Your task to perform on an android device: Open calendar and show me the second week of next month Image 0: 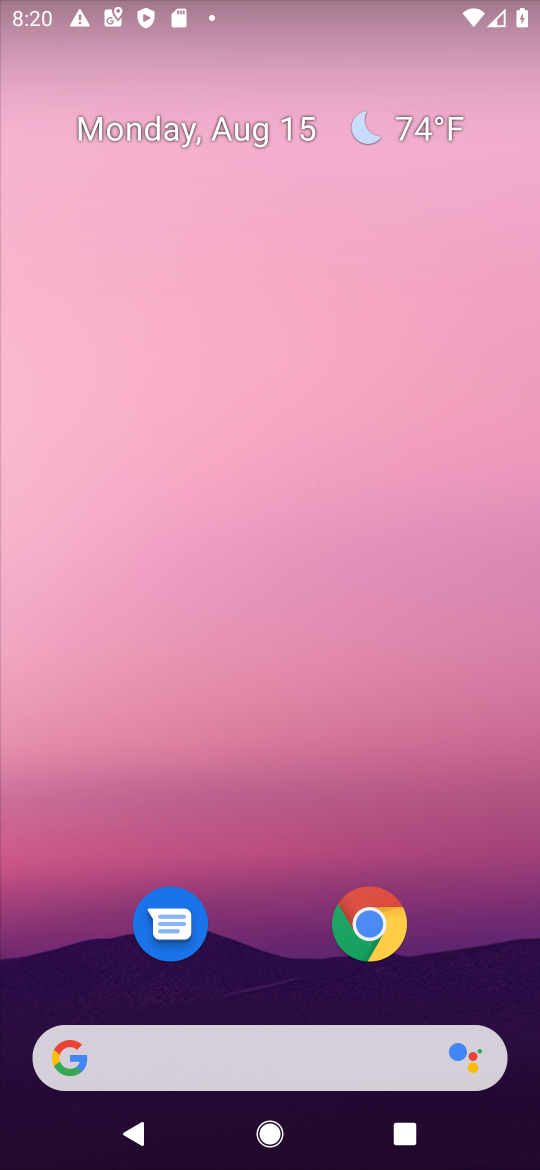
Step 0: drag from (489, 988) to (468, 218)
Your task to perform on an android device: Open calendar and show me the second week of next month Image 1: 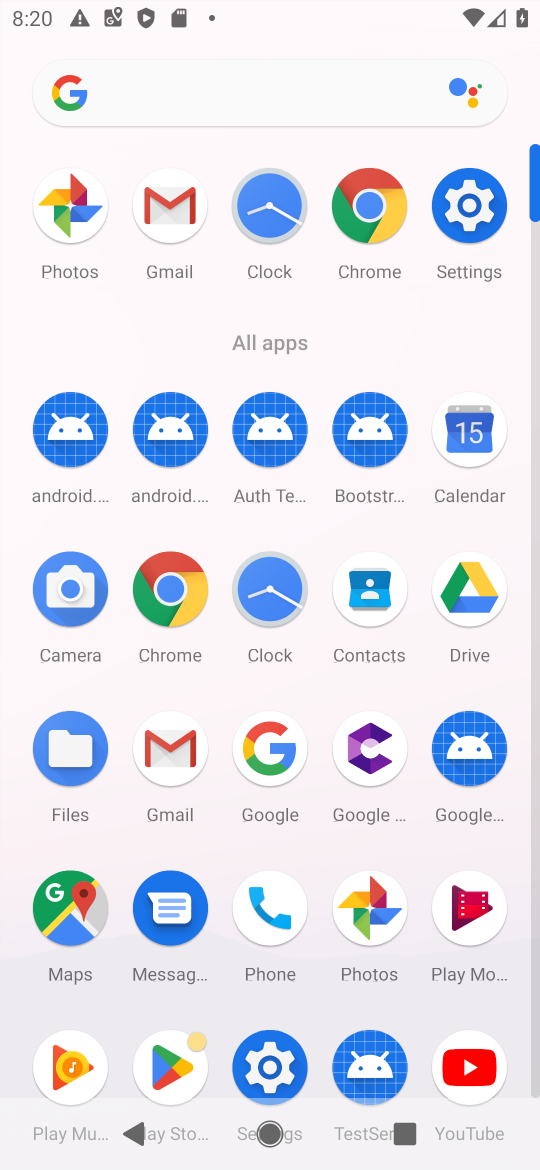
Step 1: click (472, 436)
Your task to perform on an android device: Open calendar and show me the second week of next month Image 2: 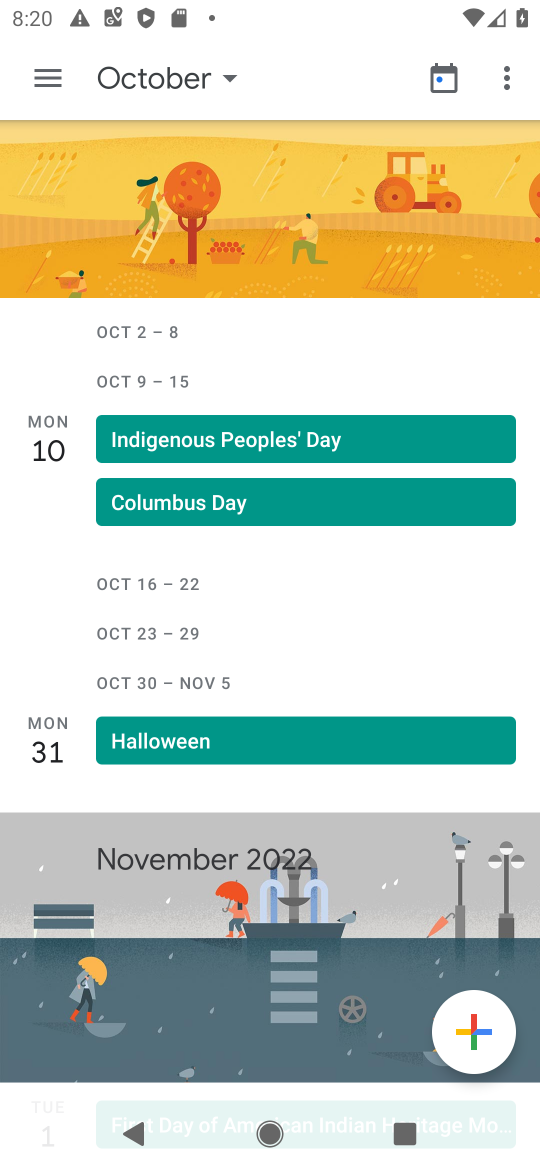
Step 2: click (41, 90)
Your task to perform on an android device: Open calendar and show me the second week of next month Image 3: 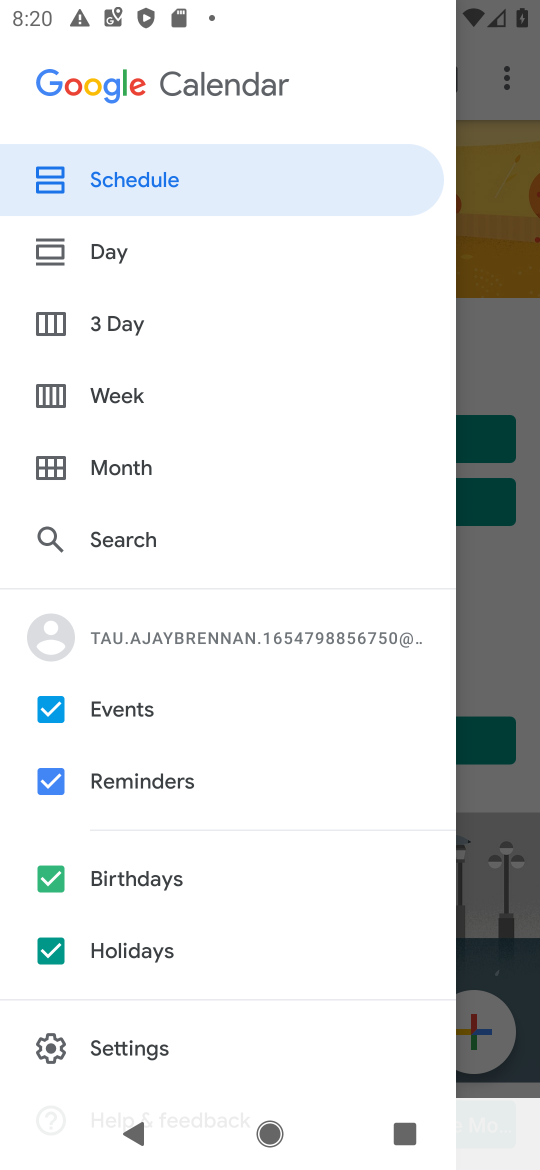
Step 3: click (123, 399)
Your task to perform on an android device: Open calendar and show me the second week of next month Image 4: 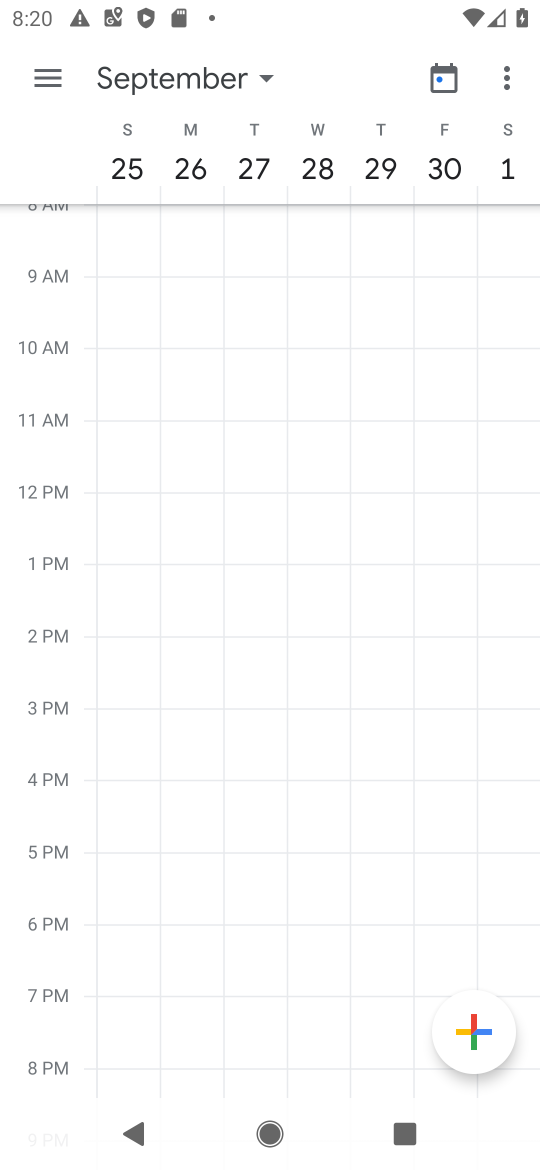
Step 4: click (268, 78)
Your task to perform on an android device: Open calendar and show me the second week of next month Image 5: 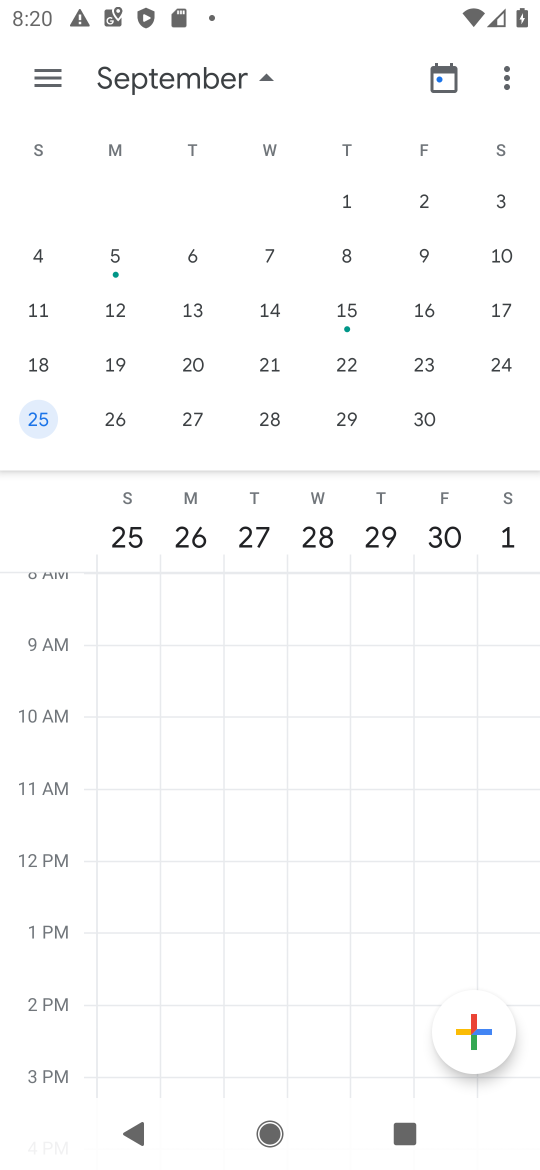
Step 5: click (27, 303)
Your task to perform on an android device: Open calendar and show me the second week of next month Image 6: 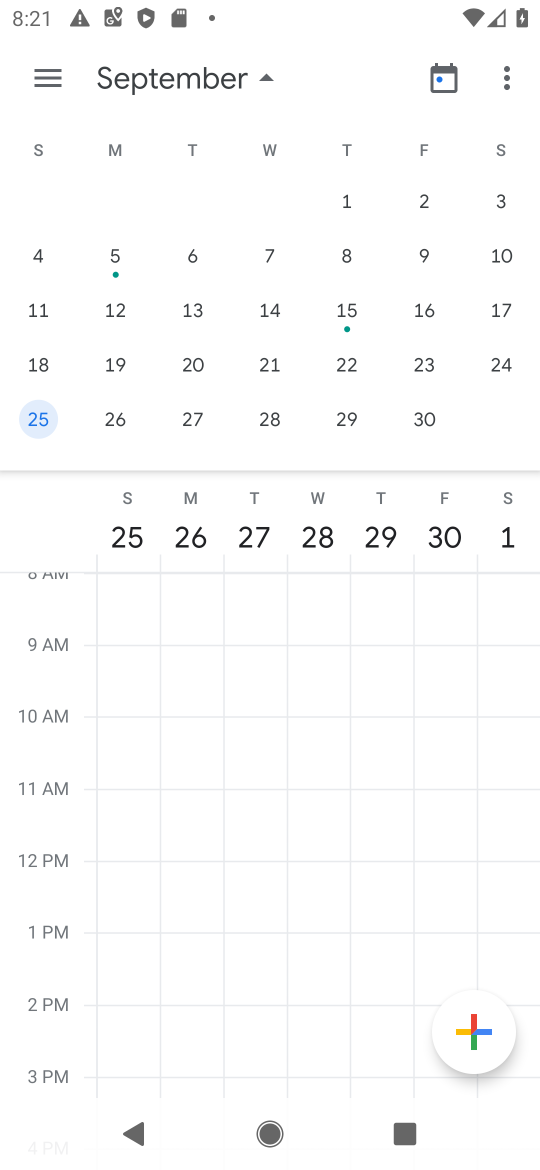
Step 6: click (44, 310)
Your task to perform on an android device: Open calendar and show me the second week of next month Image 7: 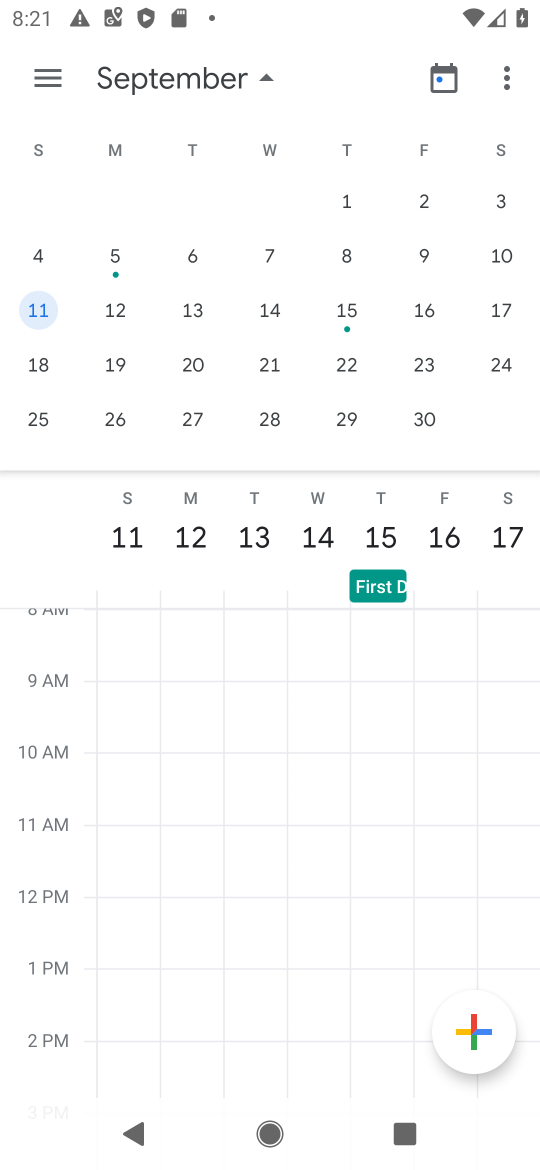
Step 7: task complete